Your task to perform on an android device: Go to settings Image 0: 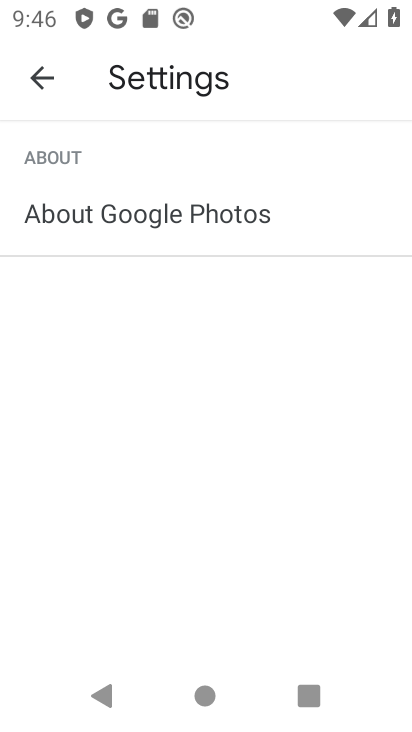
Step 0: press home button
Your task to perform on an android device: Go to settings Image 1: 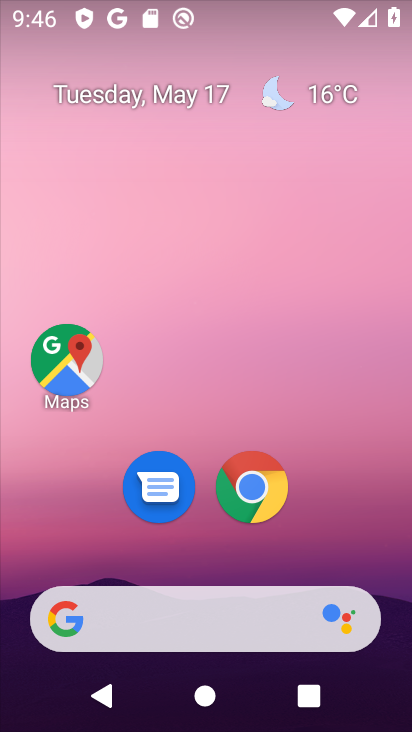
Step 1: drag from (369, 547) to (344, 309)
Your task to perform on an android device: Go to settings Image 2: 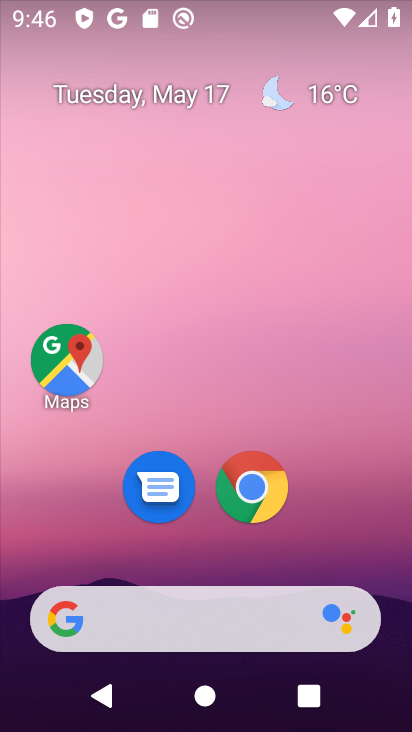
Step 2: drag from (389, 704) to (388, 318)
Your task to perform on an android device: Go to settings Image 3: 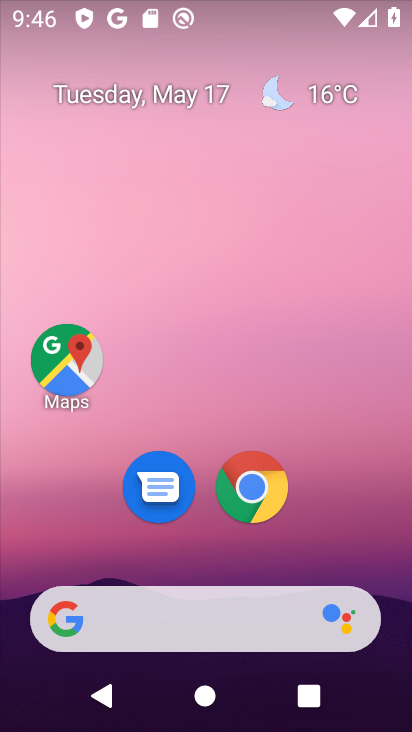
Step 3: drag from (396, 686) to (347, 285)
Your task to perform on an android device: Go to settings Image 4: 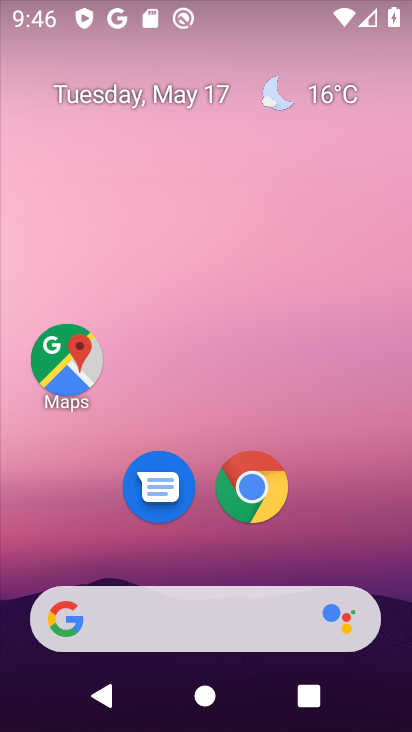
Step 4: drag from (343, 555) to (357, 211)
Your task to perform on an android device: Go to settings Image 5: 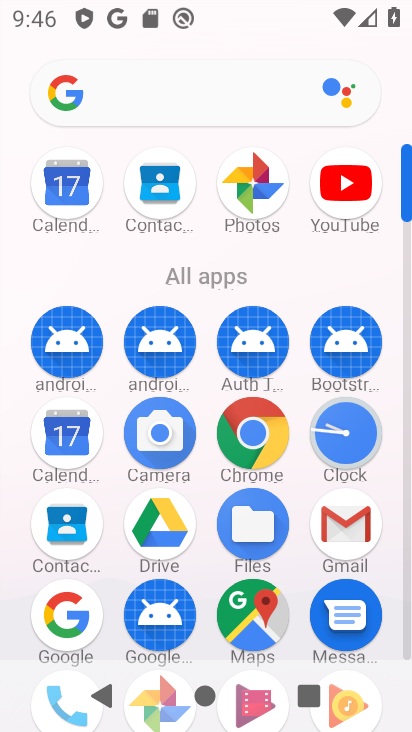
Step 5: drag from (403, 155) to (404, 95)
Your task to perform on an android device: Go to settings Image 6: 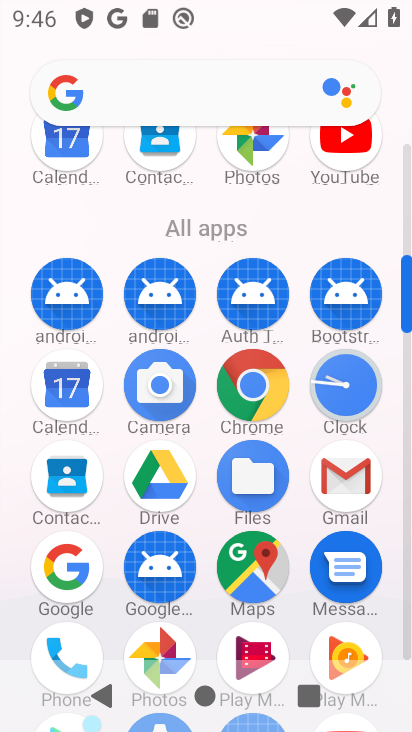
Step 6: drag from (407, 269) to (401, 214)
Your task to perform on an android device: Go to settings Image 7: 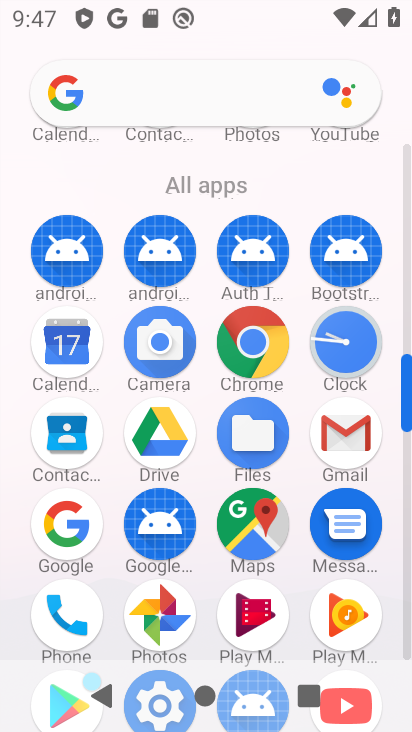
Step 7: click (405, 356)
Your task to perform on an android device: Go to settings Image 8: 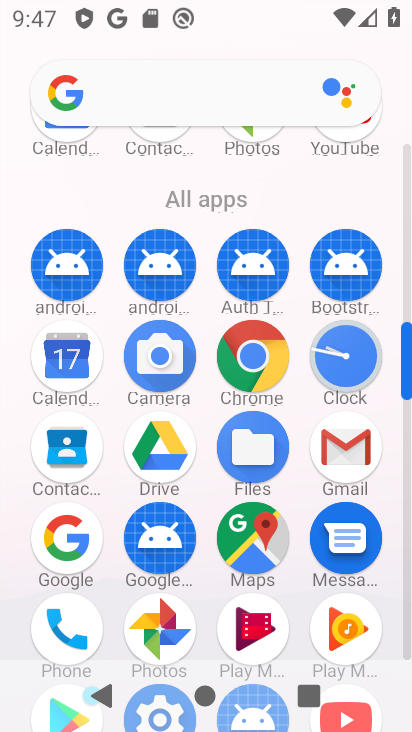
Step 8: drag from (407, 363) to (407, 253)
Your task to perform on an android device: Go to settings Image 9: 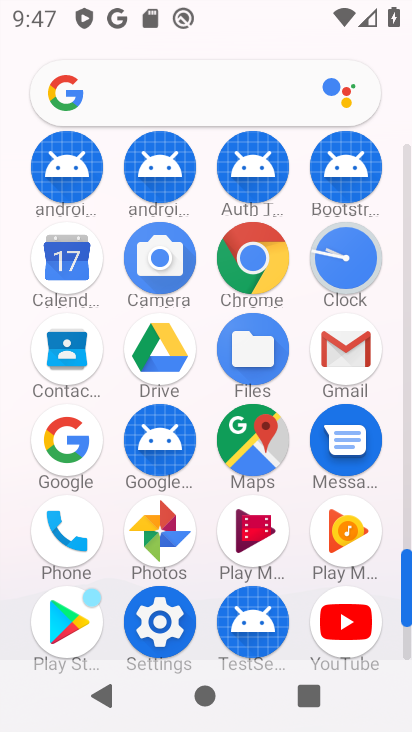
Step 9: click (162, 604)
Your task to perform on an android device: Go to settings Image 10: 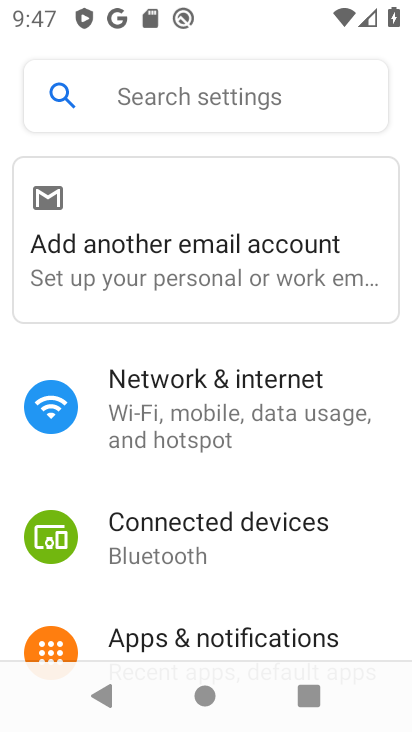
Step 10: click (169, 405)
Your task to perform on an android device: Go to settings Image 11: 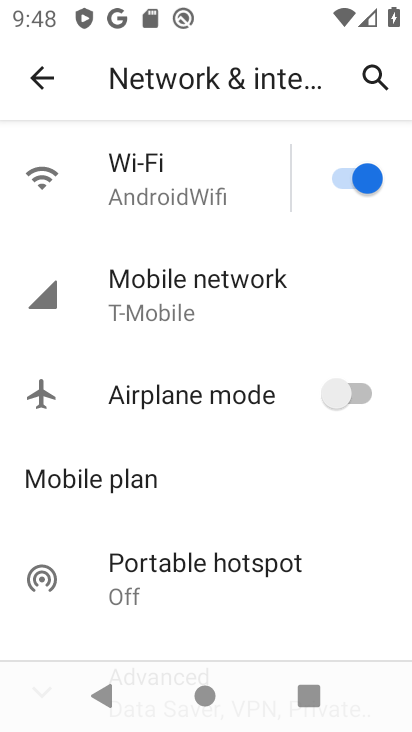
Step 11: task complete